Your task to perform on an android device: Is it going to rain this weekend? Image 0: 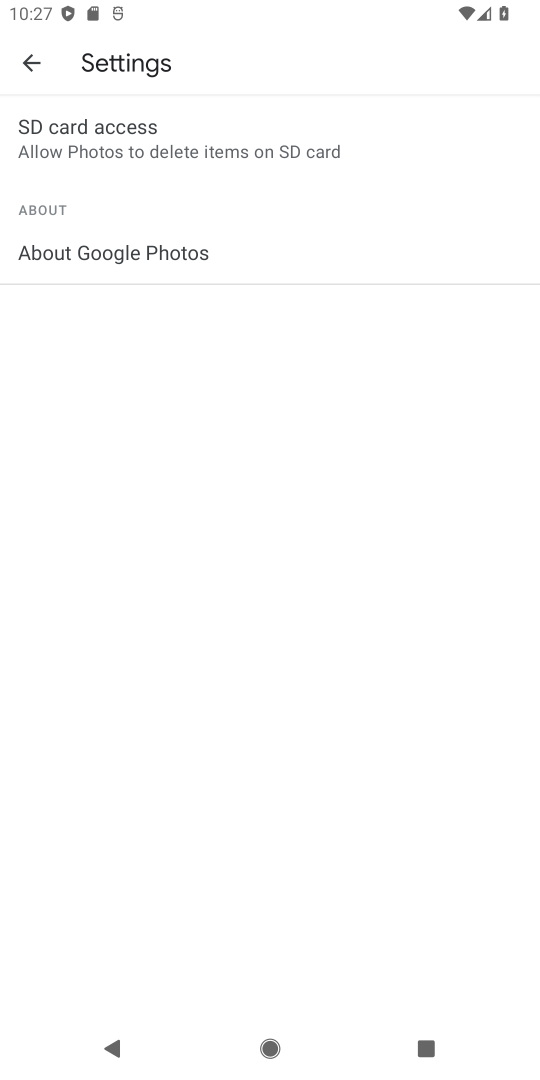
Step 0: press home button
Your task to perform on an android device: Is it going to rain this weekend? Image 1: 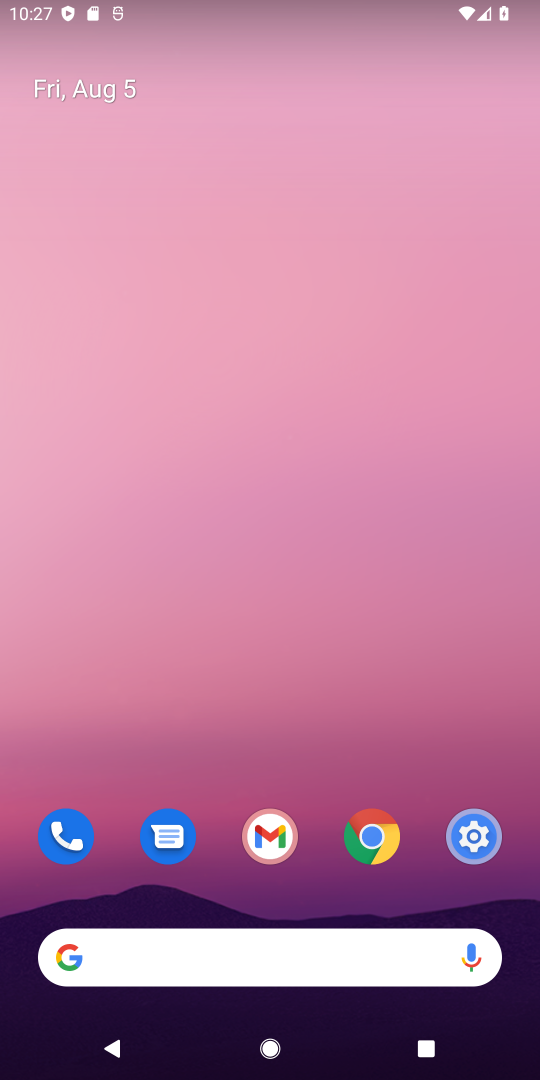
Step 1: drag from (313, 759) to (360, 42)
Your task to perform on an android device: Is it going to rain this weekend? Image 2: 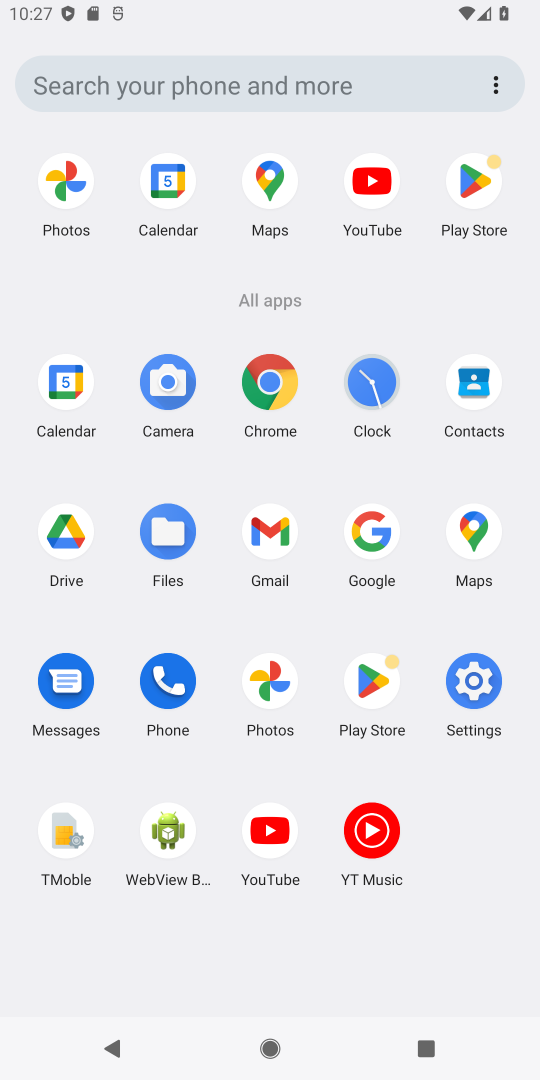
Step 2: click (271, 377)
Your task to perform on an android device: Is it going to rain this weekend? Image 3: 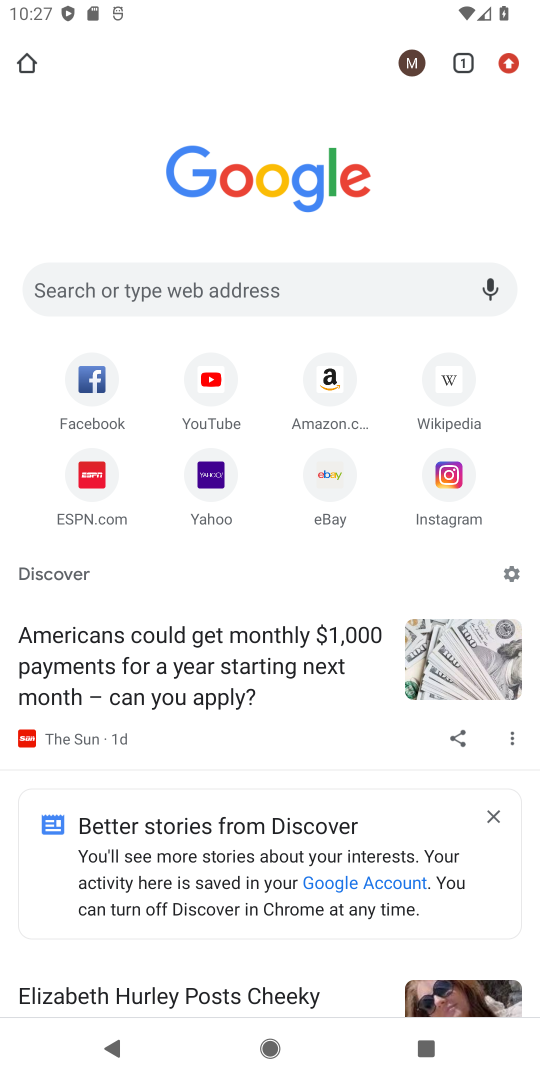
Step 3: click (283, 284)
Your task to perform on an android device: Is it going to rain this weekend? Image 4: 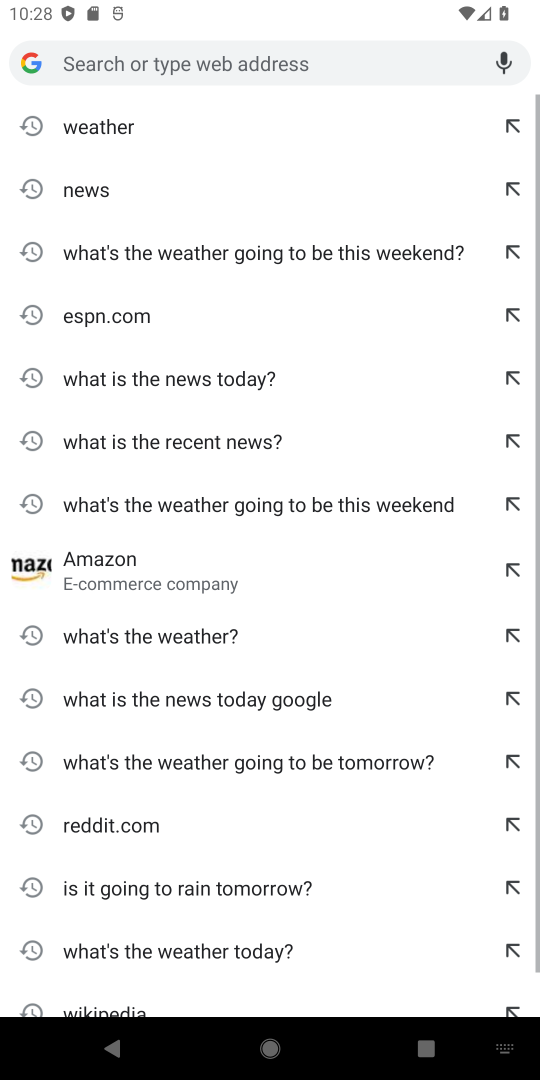
Step 4: click (98, 131)
Your task to perform on an android device: Is it going to rain this weekend? Image 5: 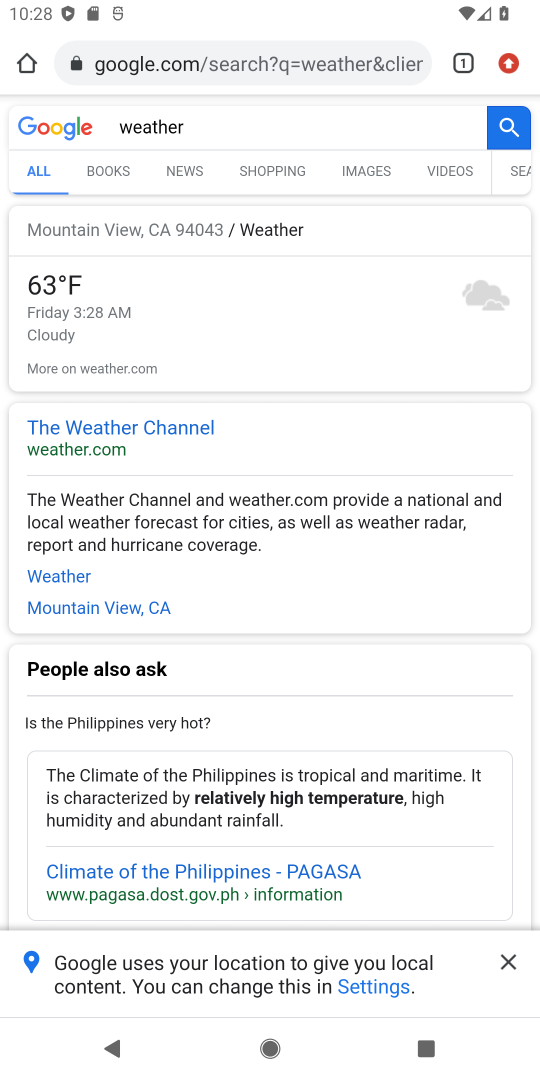
Step 5: click (310, 122)
Your task to perform on an android device: Is it going to rain this weekend? Image 6: 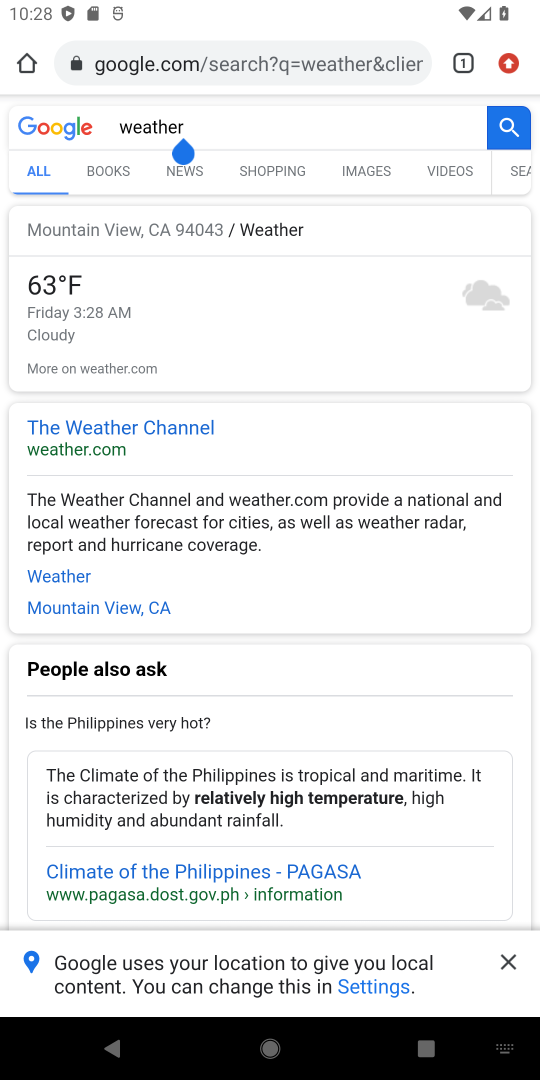
Step 6: type " weekend"
Your task to perform on an android device: Is it going to rain this weekend? Image 7: 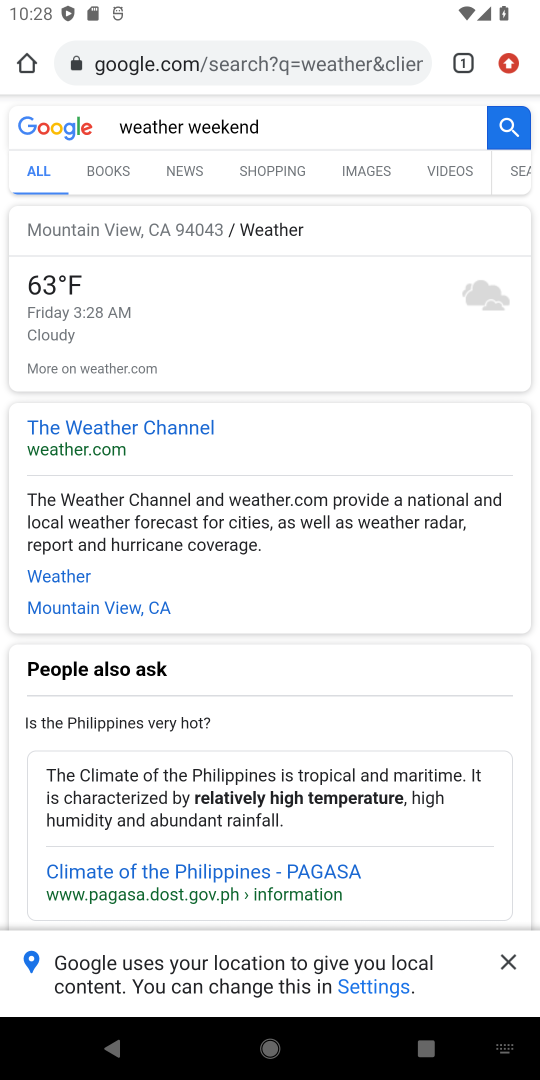
Step 7: press enter
Your task to perform on an android device: Is it going to rain this weekend? Image 8: 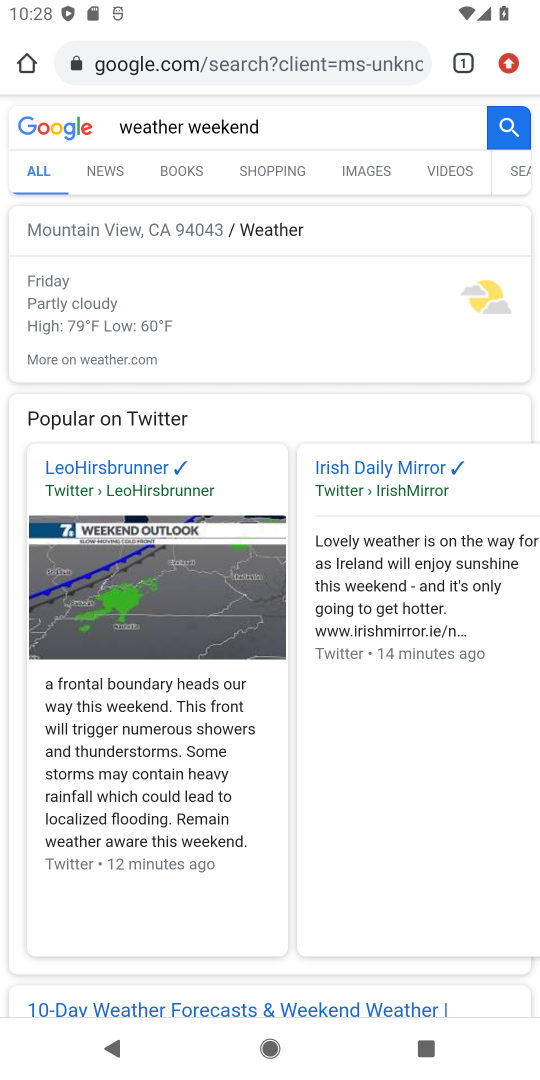
Step 8: task complete